Your task to perform on an android device: open wifi settings Image 0: 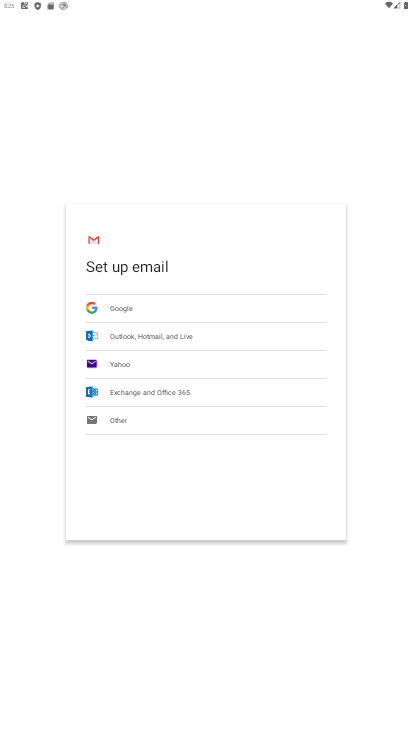
Step 0: press home button
Your task to perform on an android device: open wifi settings Image 1: 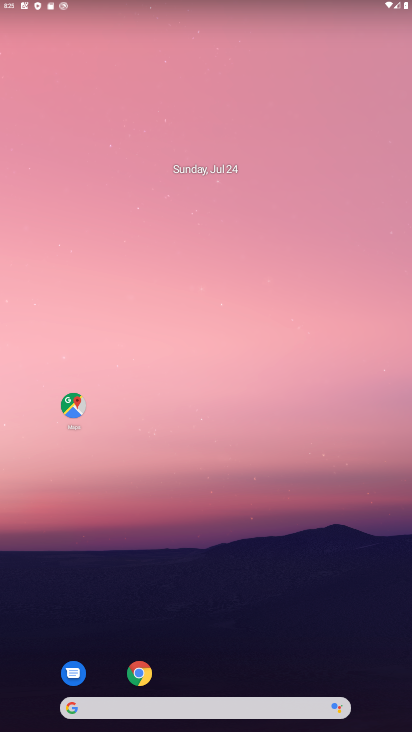
Step 1: drag from (168, 535) to (198, 52)
Your task to perform on an android device: open wifi settings Image 2: 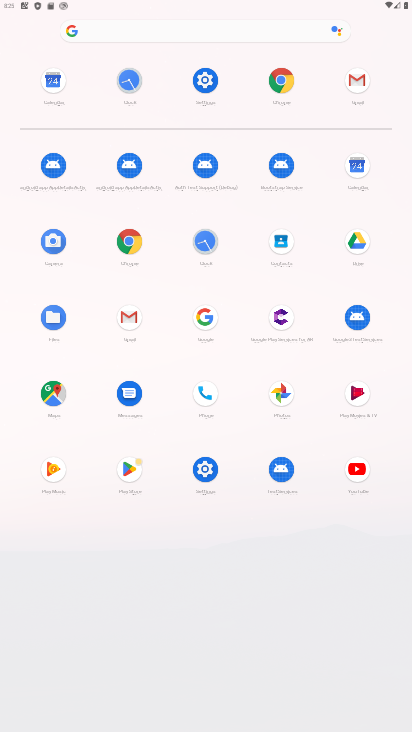
Step 2: click (203, 81)
Your task to perform on an android device: open wifi settings Image 3: 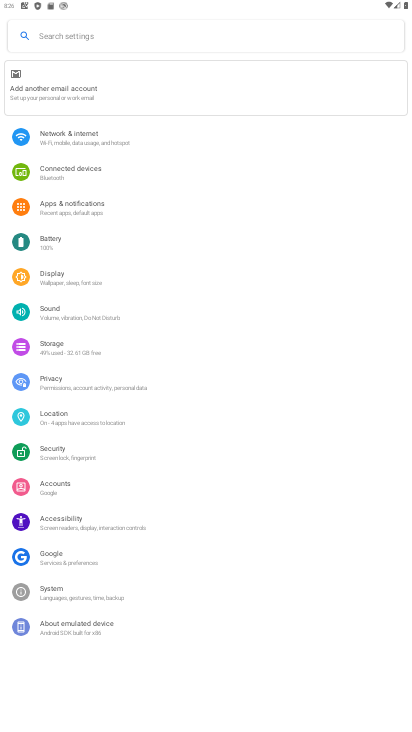
Step 3: click (98, 130)
Your task to perform on an android device: open wifi settings Image 4: 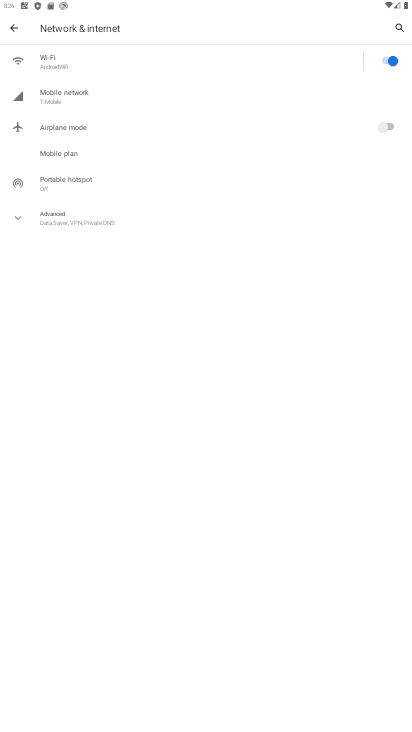
Step 4: click (149, 69)
Your task to perform on an android device: open wifi settings Image 5: 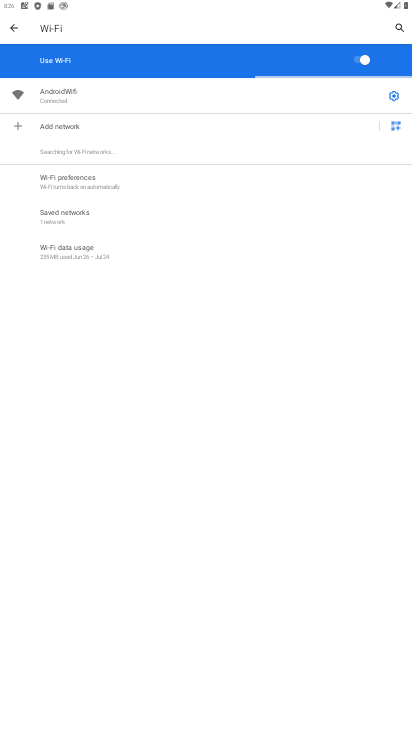
Step 5: task complete